Your task to perform on an android device: Clear all items from cart on target.com. Search for lenovo thinkpad on target.com, select the first entry, add it to the cart, then select checkout. Image 0: 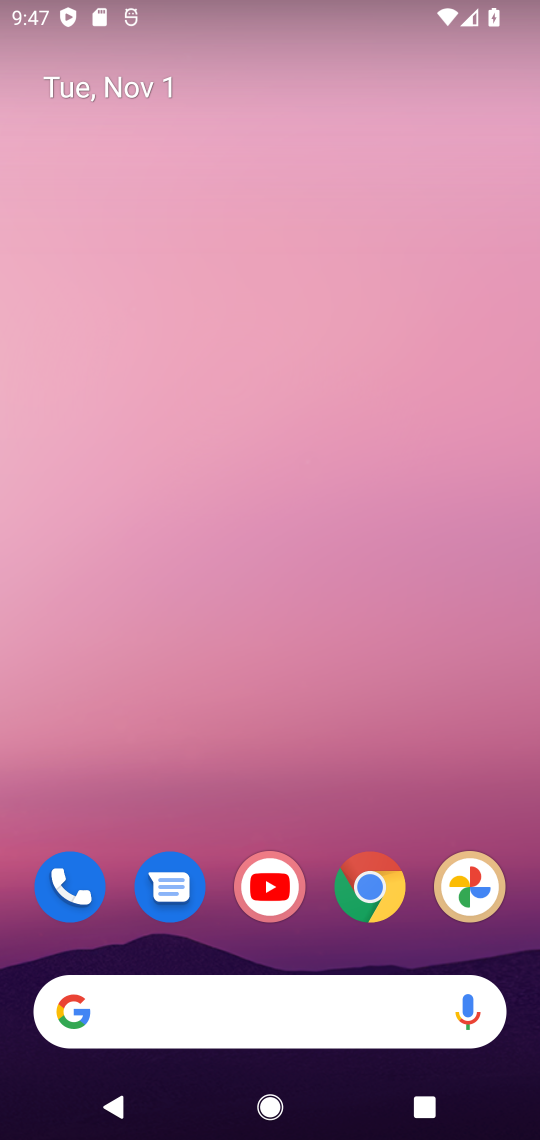
Step 0: click (381, 880)
Your task to perform on an android device: Clear all items from cart on target.com. Search for lenovo thinkpad on target.com, select the first entry, add it to the cart, then select checkout. Image 1: 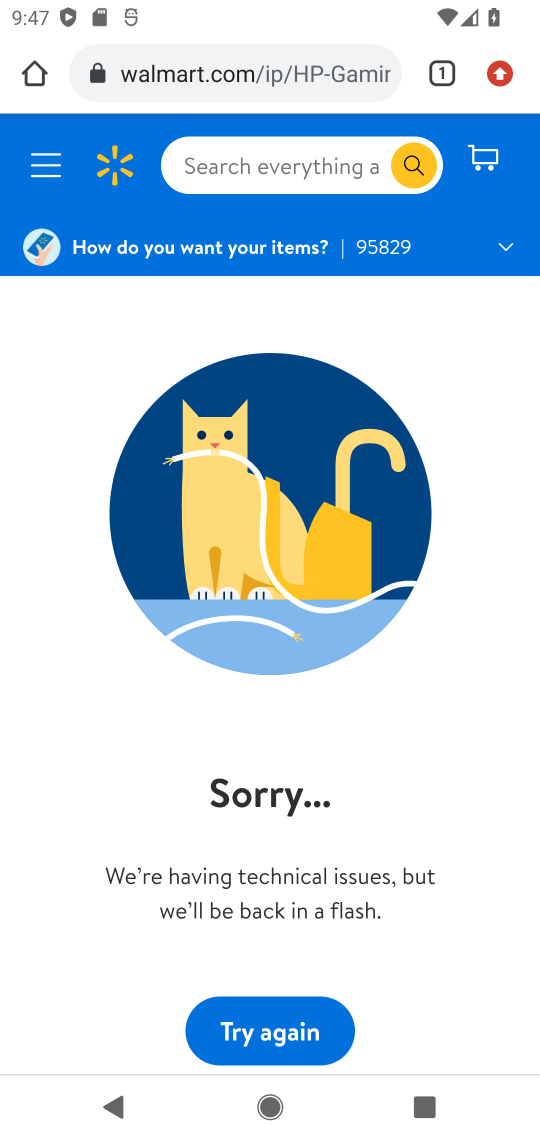
Step 1: click (306, 84)
Your task to perform on an android device: Clear all items from cart on target.com. Search for lenovo thinkpad on target.com, select the first entry, add it to the cart, then select checkout. Image 2: 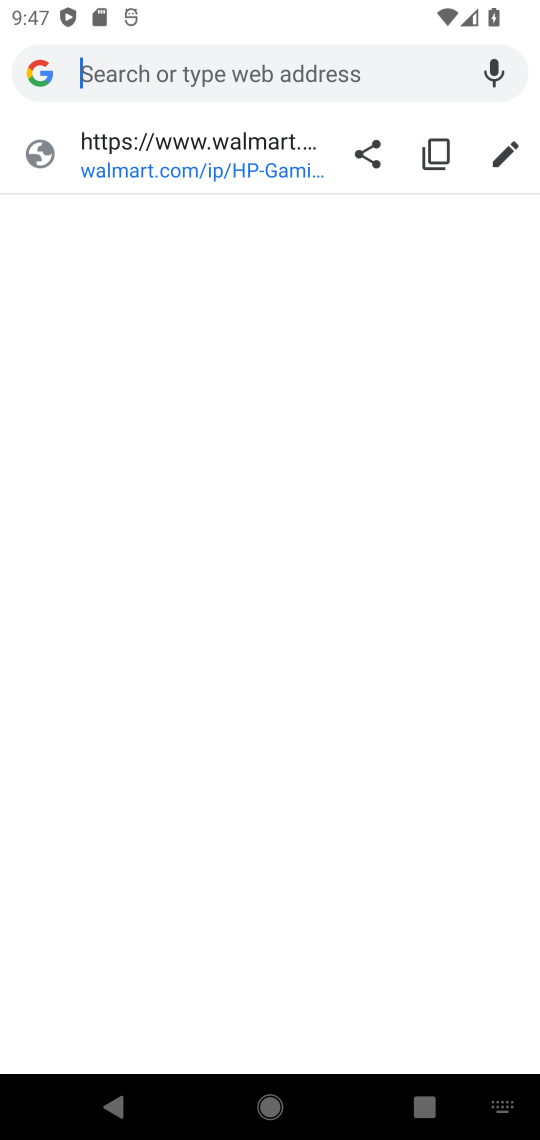
Step 2: type " target.com"
Your task to perform on an android device: Clear all items from cart on target.com. Search for lenovo thinkpad on target.com, select the first entry, add it to the cart, then select checkout. Image 3: 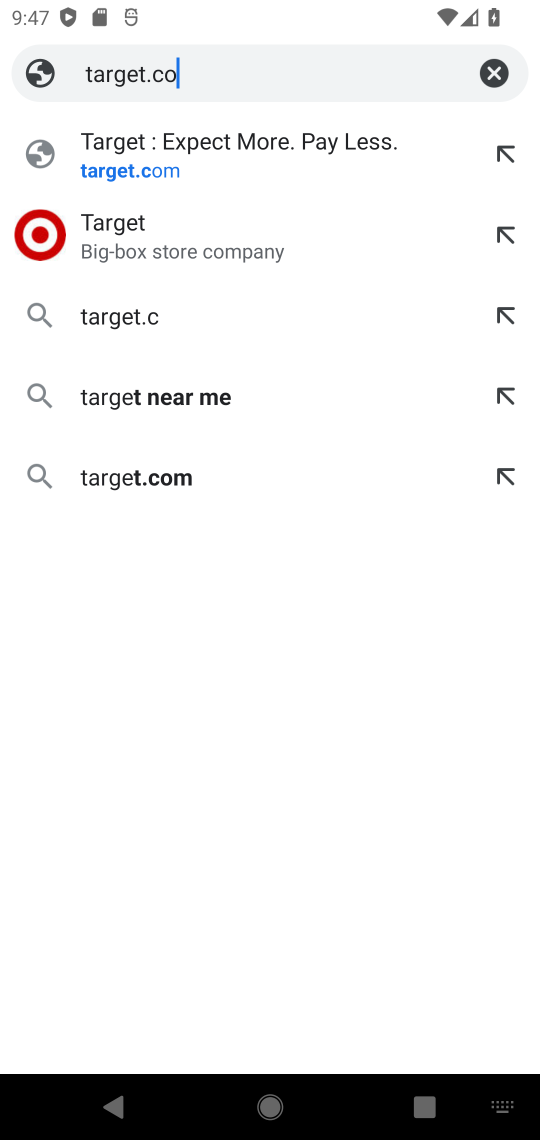
Step 3: press enter
Your task to perform on an android device: Clear all items from cart on target.com. Search for lenovo thinkpad on target.com, select the first entry, add it to the cart, then select checkout. Image 4: 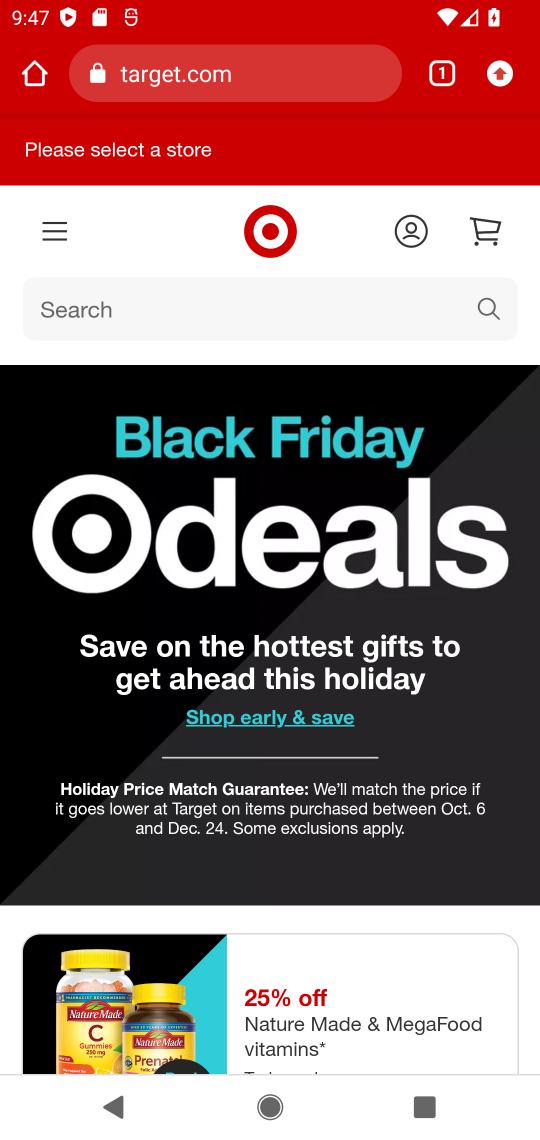
Step 4: click (491, 312)
Your task to perform on an android device: Clear all items from cart on target.com. Search for lenovo thinkpad on target.com, select the first entry, add it to the cart, then select checkout. Image 5: 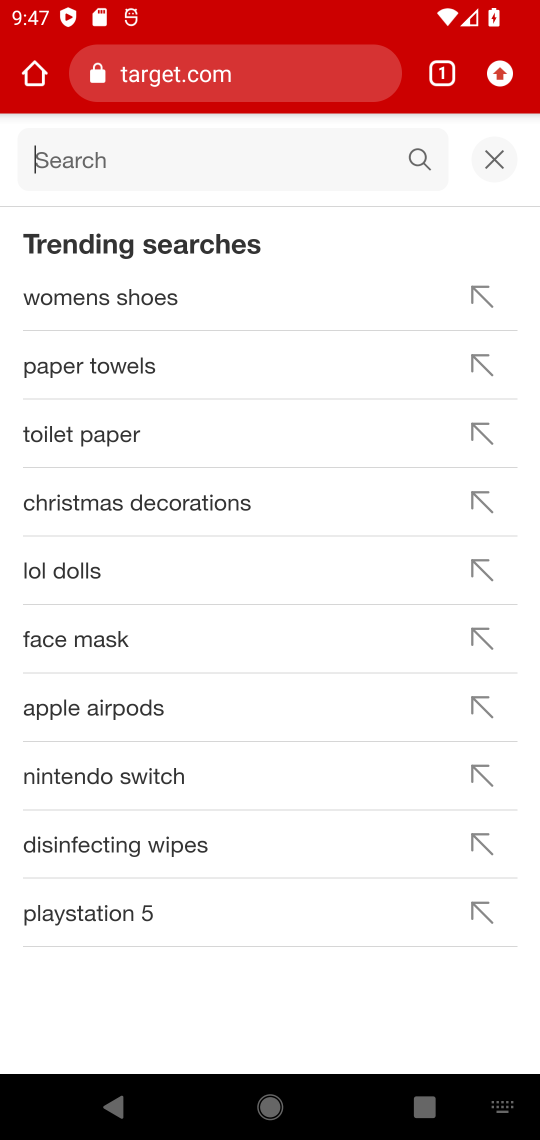
Step 5: click (498, 159)
Your task to perform on an android device: Clear all items from cart on target.com. Search for lenovo thinkpad on target.com, select the first entry, add it to the cart, then select checkout. Image 6: 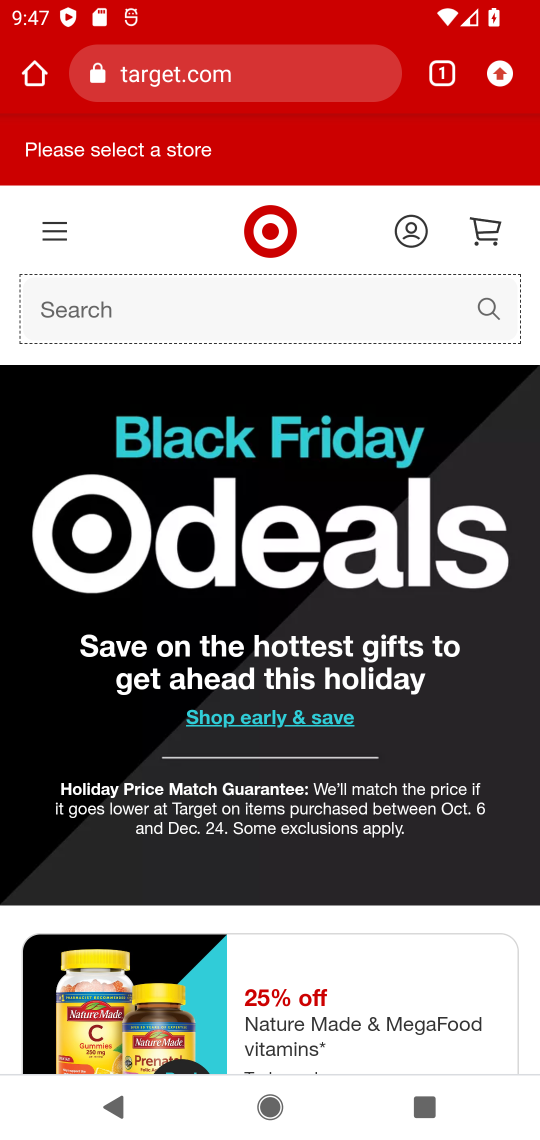
Step 6: click (494, 236)
Your task to perform on an android device: Clear all items from cart on target.com. Search for lenovo thinkpad on target.com, select the first entry, add it to the cart, then select checkout. Image 7: 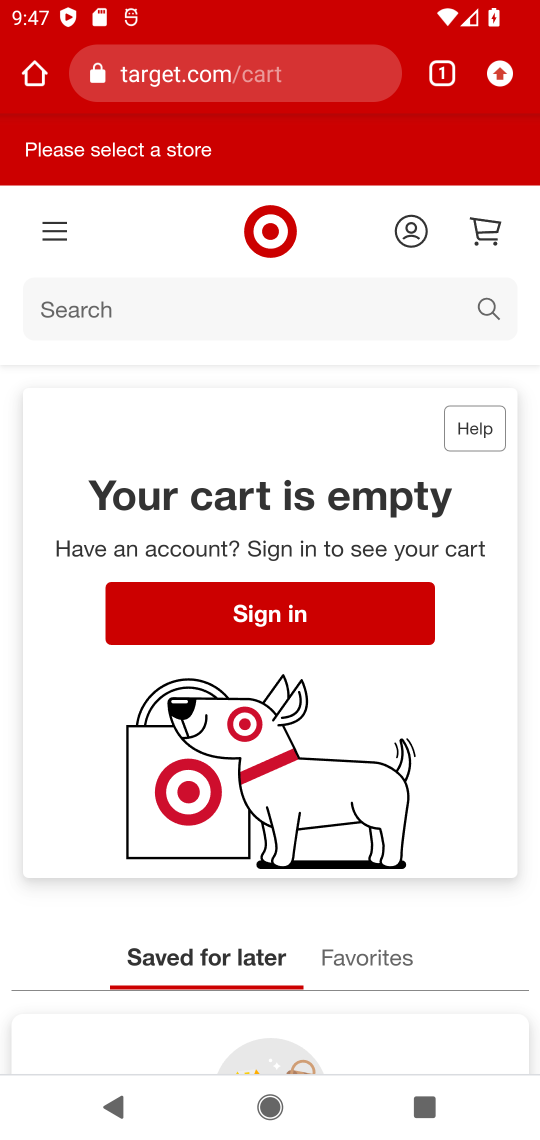
Step 7: click (481, 310)
Your task to perform on an android device: Clear all items from cart on target.com. Search for lenovo thinkpad on target.com, select the first entry, add it to the cart, then select checkout. Image 8: 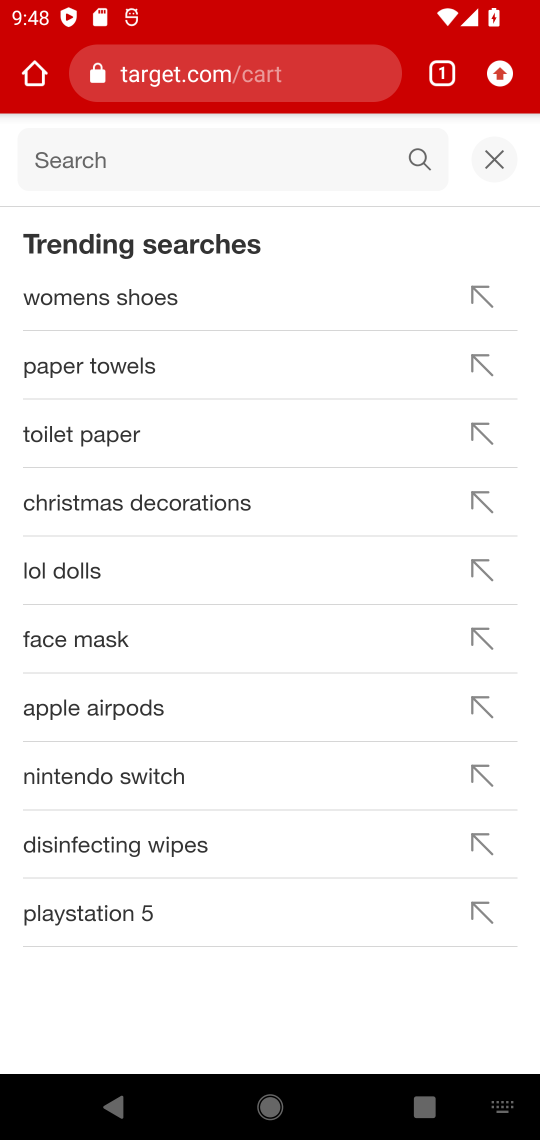
Step 8: type " lenovo thinkpad"
Your task to perform on an android device: Clear all items from cart on target.com. Search for lenovo thinkpad on target.com, select the first entry, add it to the cart, then select checkout. Image 9: 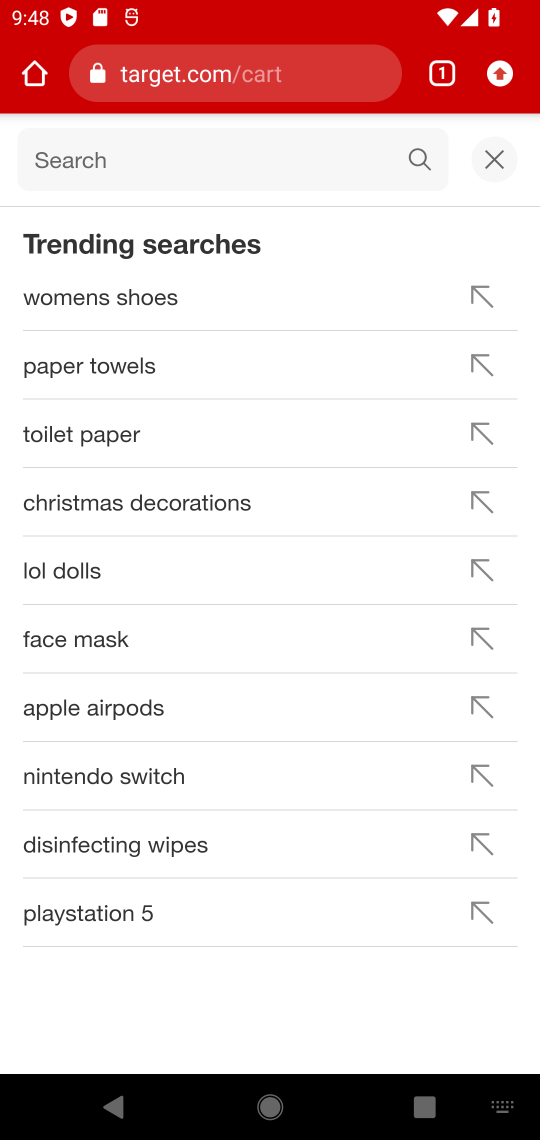
Step 9: press enter
Your task to perform on an android device: Clear all items from cart on target.com. Search for lenovo thinkpad on target.com, select the first entry, add it to the cart, then select checkout. Image 10: 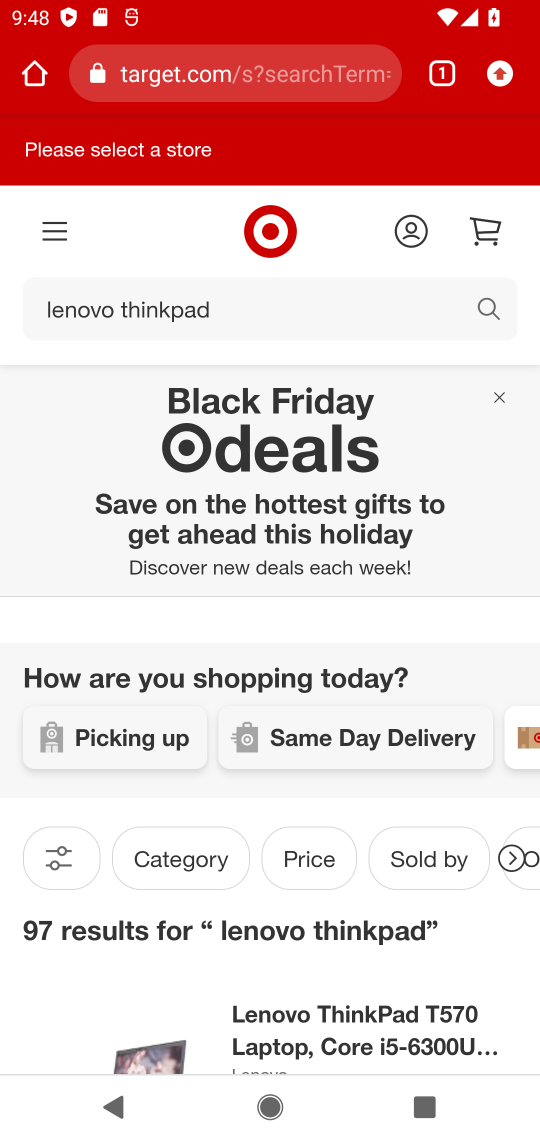
Step 10: drag from (372, 957) to (360, 540)
Your task to perform on an android device: Clear all items from cart on target.com. Search for lenovo thinkpad on target.com, select the first entry, add it to the cart, then select checkout. Image 11: 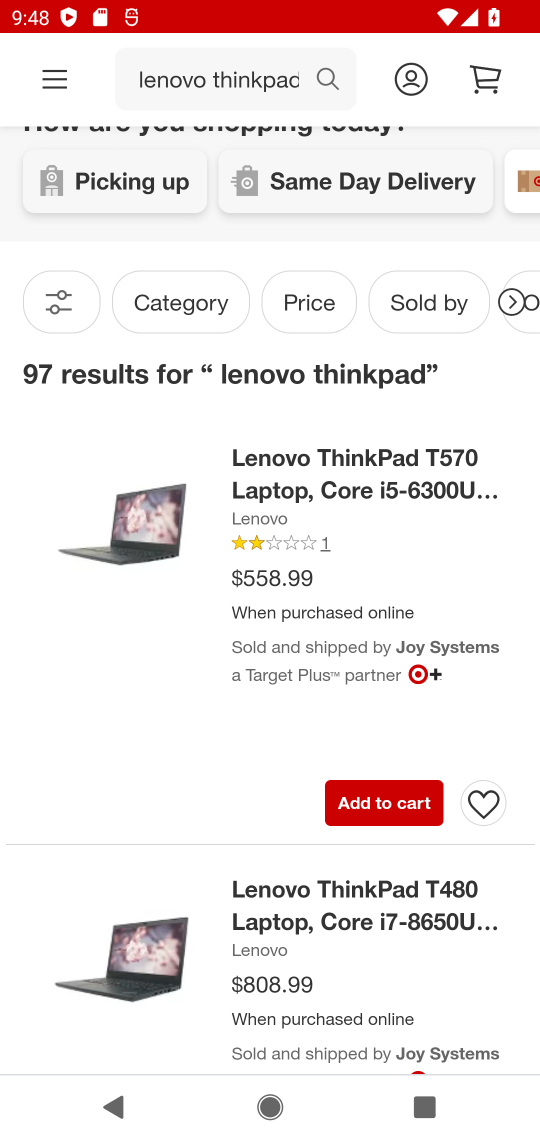
Step 11: click (112, 505)
Your task to perform on an android device: Clear all items from cart on target.com. Search for lenovo thinkpad on target.com, select the first entry, add it to the cart, then select checkout. Image 12: 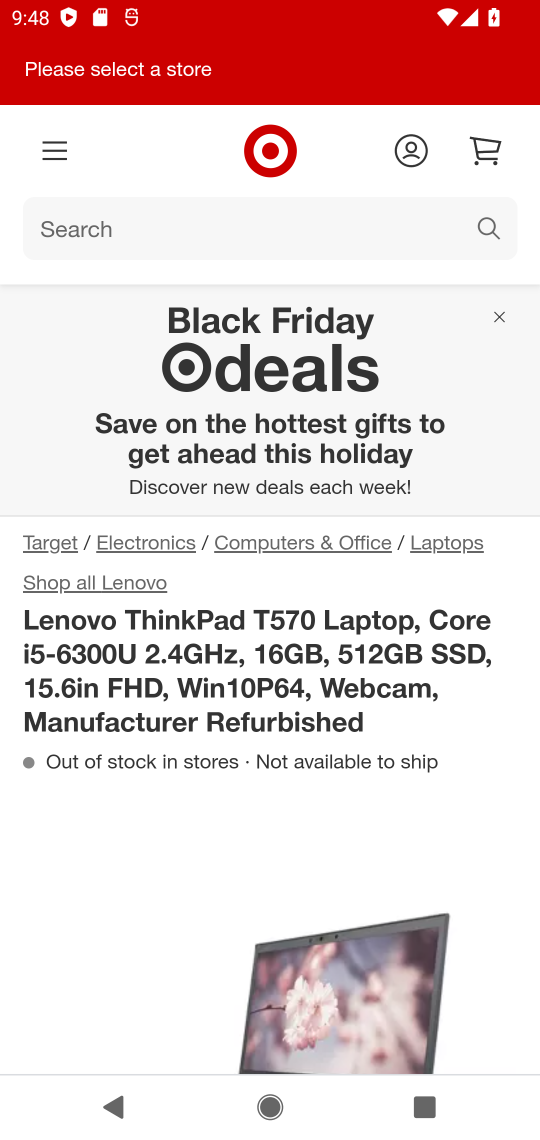
Step 12: drag from (400, 804) to (407, 570)
Your task to perform on an android device: Clear all items from cart on target.com. Search for lenovo thinkpad on target.com, select the first entry, add it to the cart, then select checkout. Image 13: 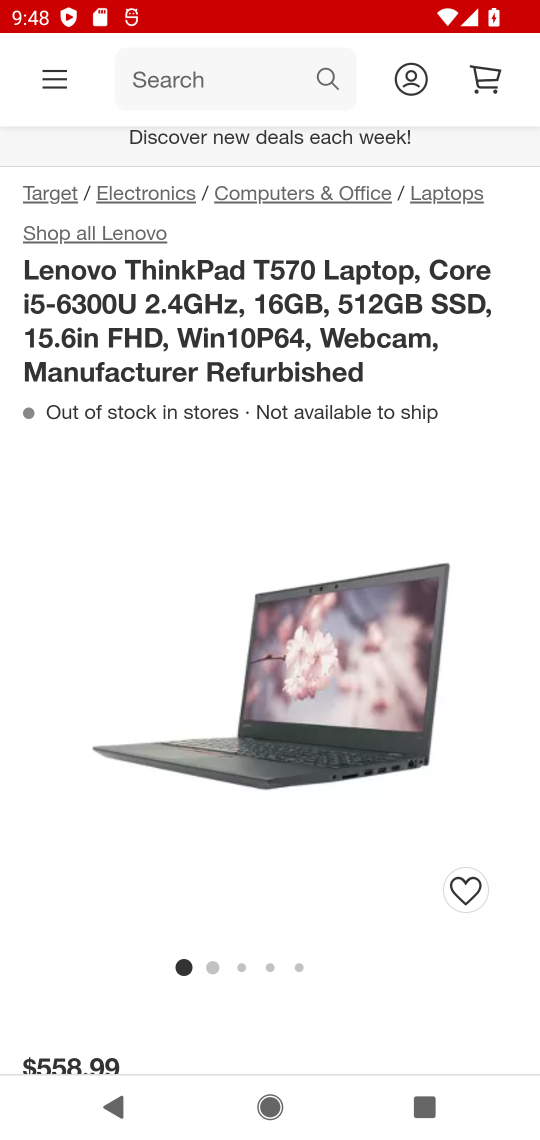
Step 13: drag from (320, 863) to (382, 873)
Your task to perform on an android device: Clear all items from cart on target.com. Search for lenovo thinkpad on target.com, select the first entry, add it to the cart, then select checkout. Image 14: 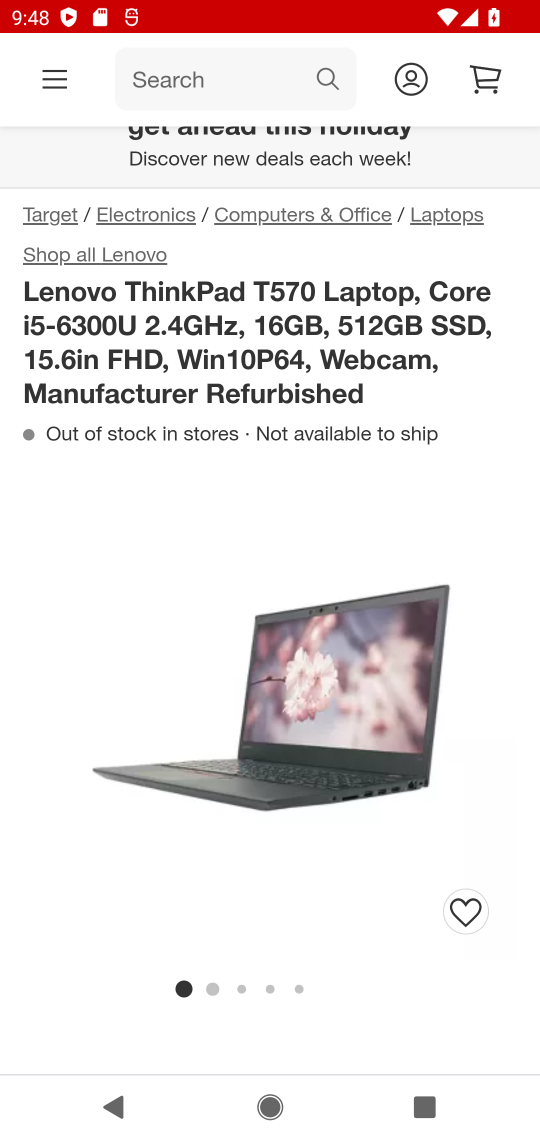
Step 14: drag from (230, 782) to (218, 319)
Your task to perform on an android device: Clear all items from cart on target.com. Search for lenovo thinkpad on target.com, select the first entry, add it to the cart, then select checkout. Image 15: 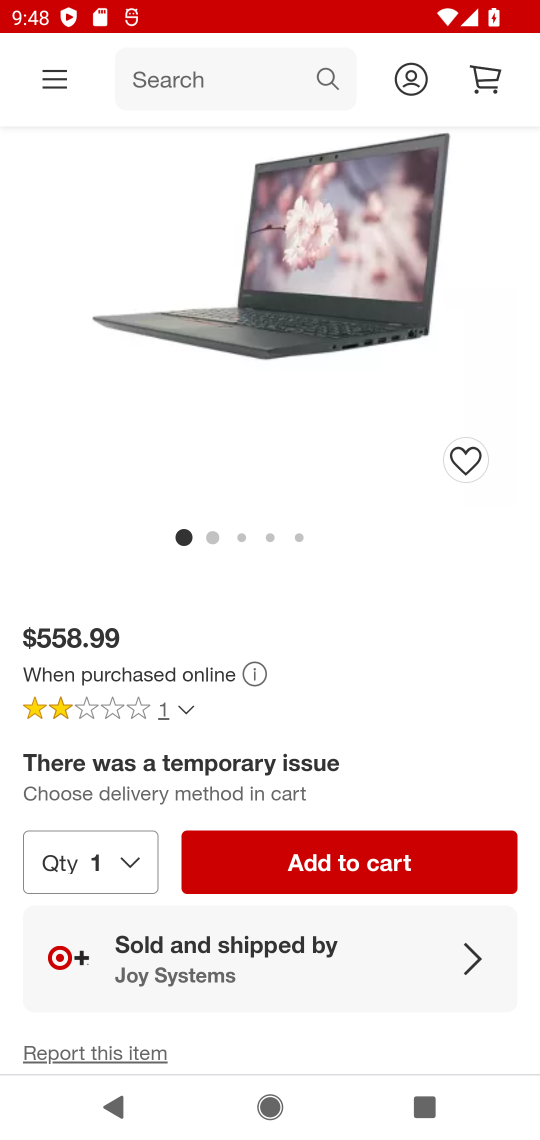
Step 15: click (353, 867)
Your task to perform on an android device: Clear all items from cart on target.com. Search for lenovo thinkpad on target.com, select the first entry, add it to the cart, then select checkout. Image 16: 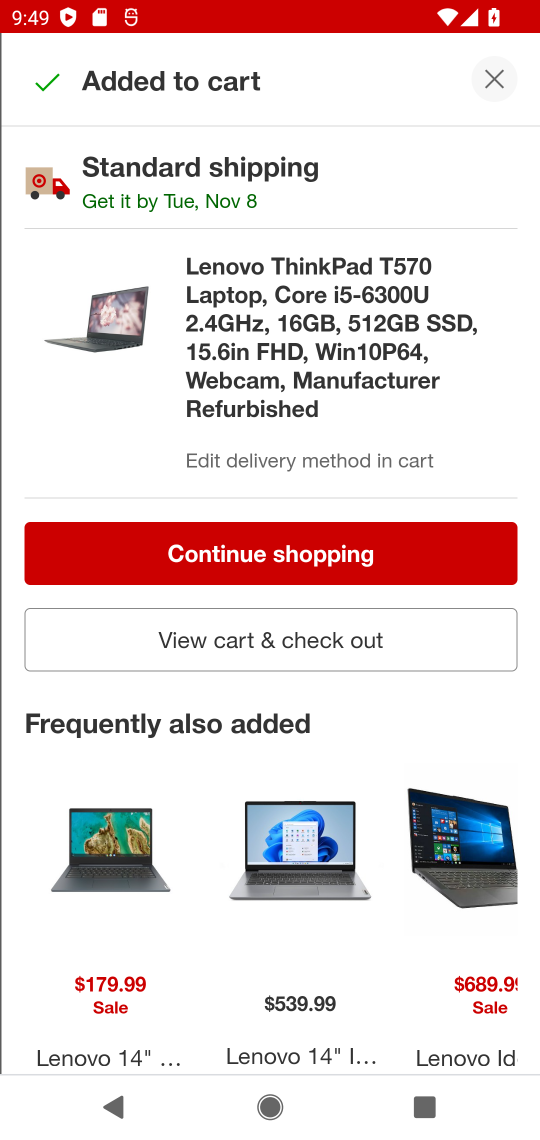
Step 16: drag from (415, 720) to (452, 177)
Your task to perform on an android device: Clear all items from cart on target.com. Search for lenovo thinkpad on target.com, select the first entry, add it to the cart, then select checkout. Image 17: 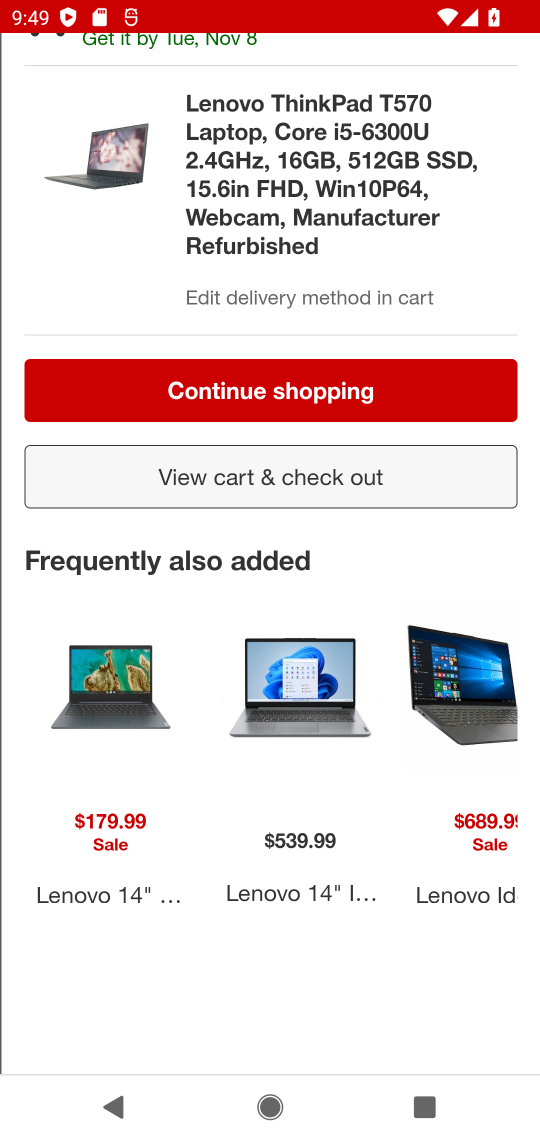
Step 17: click (294, 478)
Your task to perform on an android device: Clear all items from cart on target.com. Search for lenovo thinkpad on target.com, select the first entry, add it to the cart, then select checkout. Image 18: 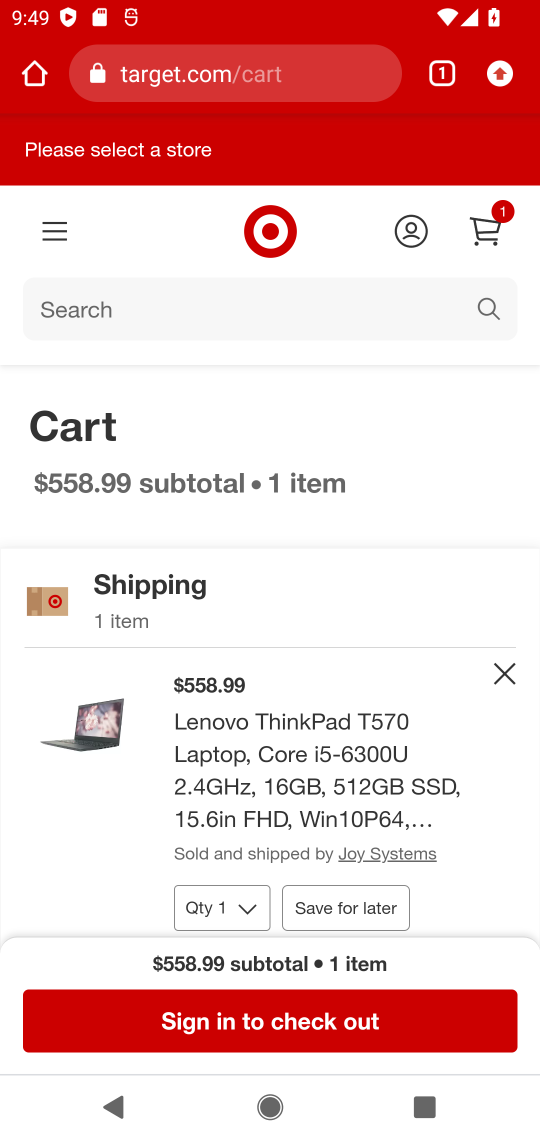
Step 18: click (340, 1021)
Your task to perform on an android device: Clear all items from cart on target.com. Search for lenovo thinkpad on target.com, select the first entry, add it to the cart, then select checkout. Image 19: 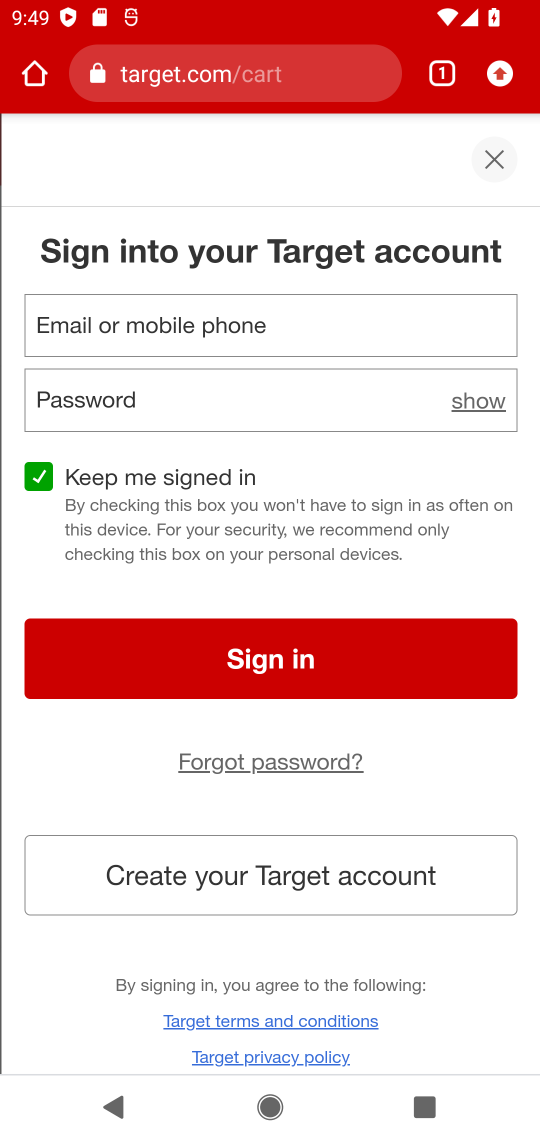
Step 19: task complete